Your task to perform on an android device: Check the weather Image 0: 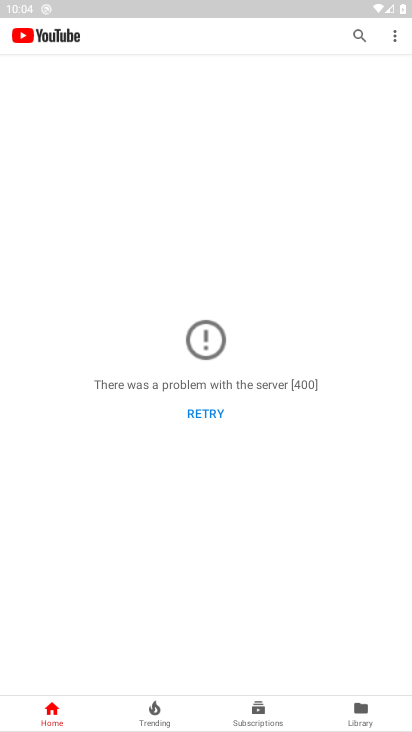
Step 0: press home button
Your task to perform on an android device: Check the weather Image 1: 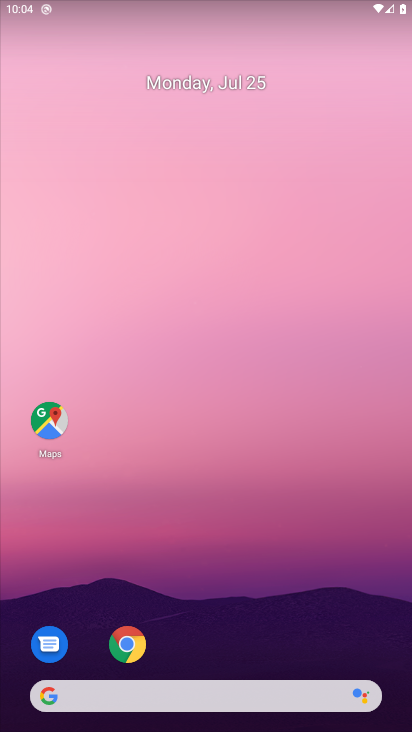
Step 1: click (36, 424)
Your task to perform on an android device: Check the weather Image 2: 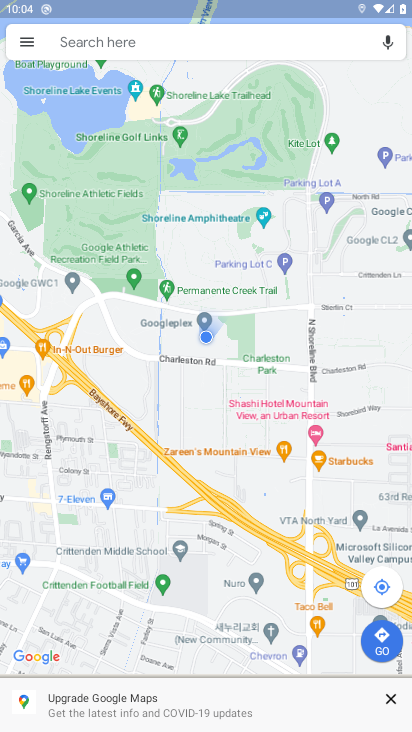
Step 2: press home button
Your task to perform on an android device: Check the weather Image 3: 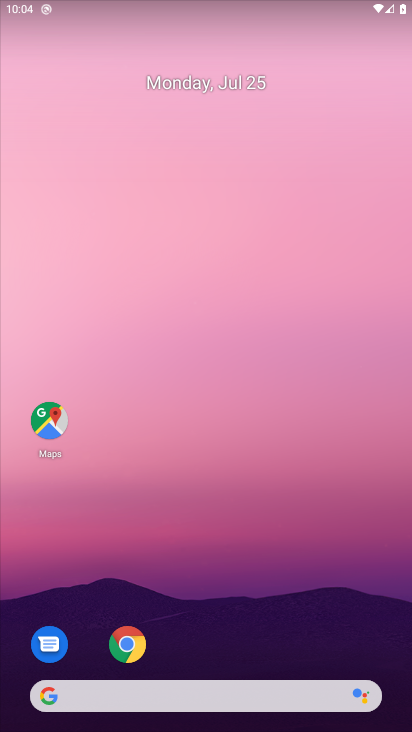
Step 3: drag from (181, 656) to (223, 92)
Your task to perform on an android device: Check the weather Image 4: 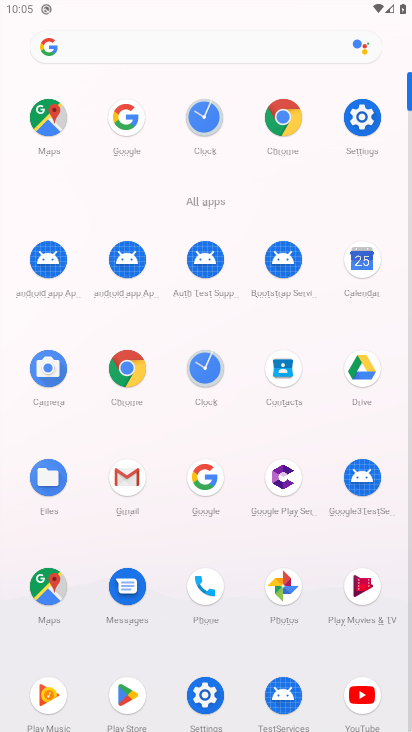
Step 4: click (126, 363)
Your task to perform on an android device: Check the weather Image 5: 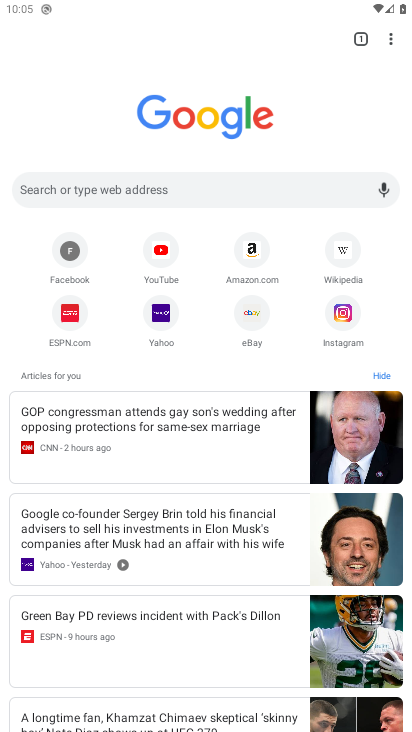
Step 5: click (201, 191)
Your task to perform on an android device: Check the weather Image 6: 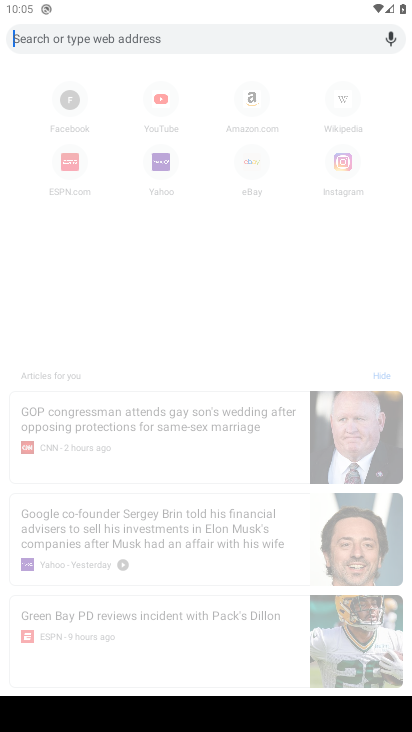
Step 6: type "weather"
Your task to perform on an android device: Check the weather Image 7: 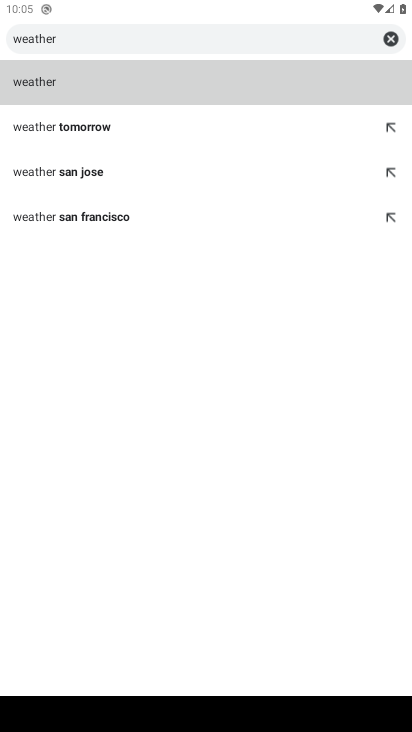
Step 7: click (57, 76)
Your task to perform on an android device: Check the weather Image 8: 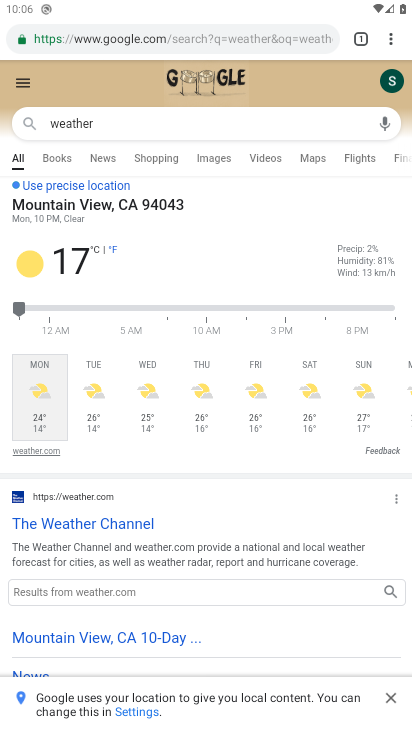
Step 8: task complete